Your task to perform on an android device: turn off notifications in google photos Image 0: 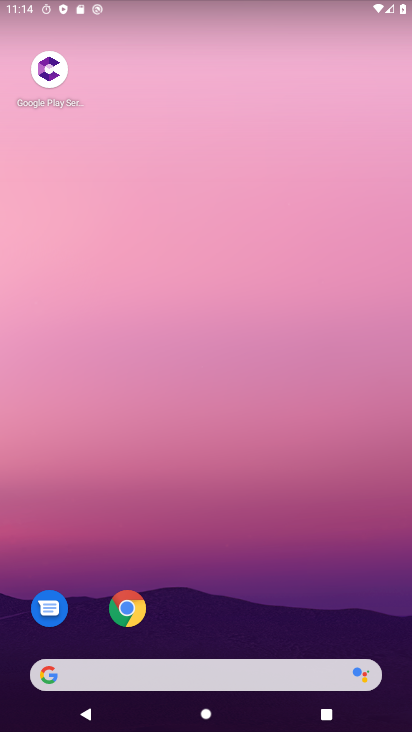
Step 0: drag from (249, 641) to (206, 43)
Your task to perform on an android device: turn off notifications in google photos Image 1: 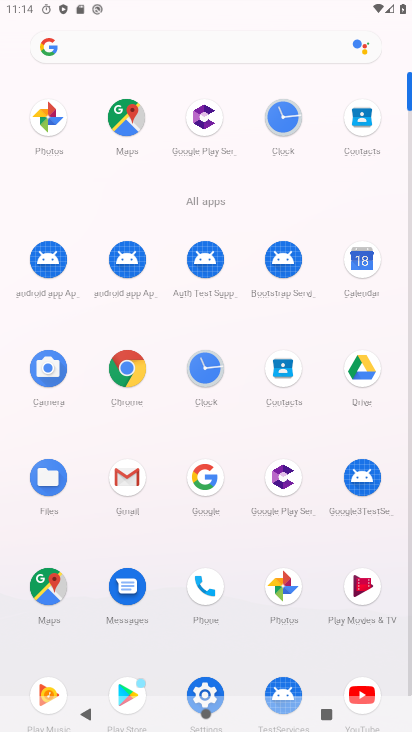
Step 1: click (290, 598)
Your task to perform on an android device: turn off notifications in google photos Image 2: 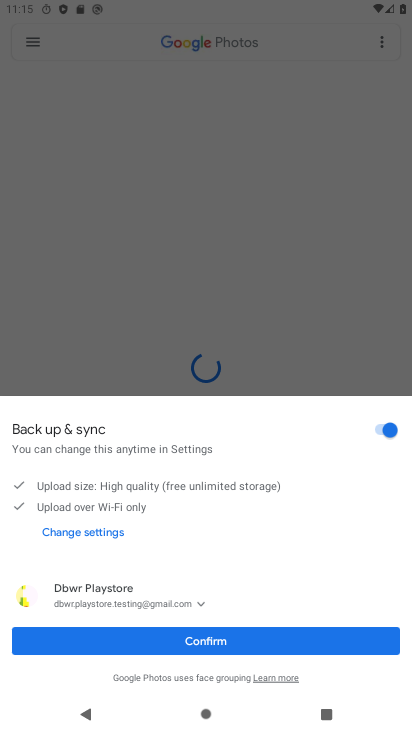
Step 2: click (240, 625)
Your task to perform on an android device: turn off notifications in google photos Image 3: 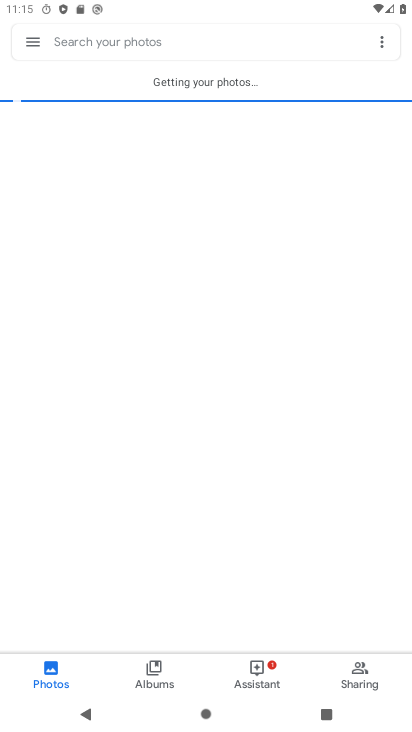
Step 3: click (34, 42)
Your task to perform on an android device: turn off notifications in google photos Image 4: 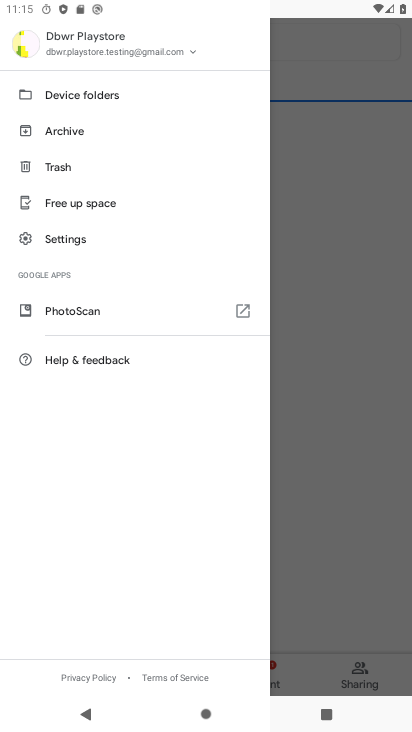
Step 4: click (137, 232)
Your task to perform on an android device: turn off notifications in google photos Image 5: 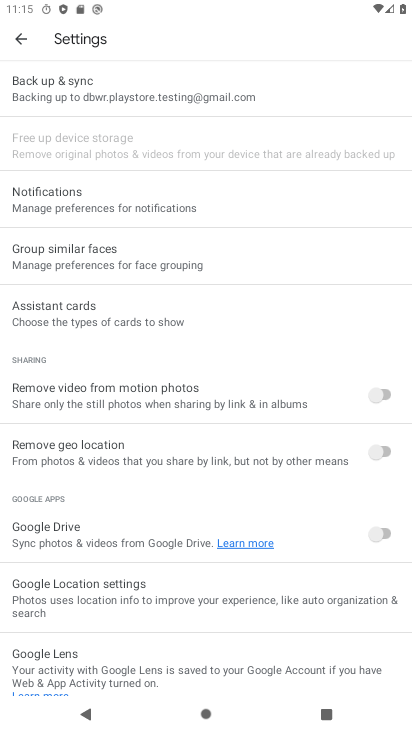
Step 5: click (186, 201)
Your task to perform on an android device: turn off notifications in google photos Image 6: 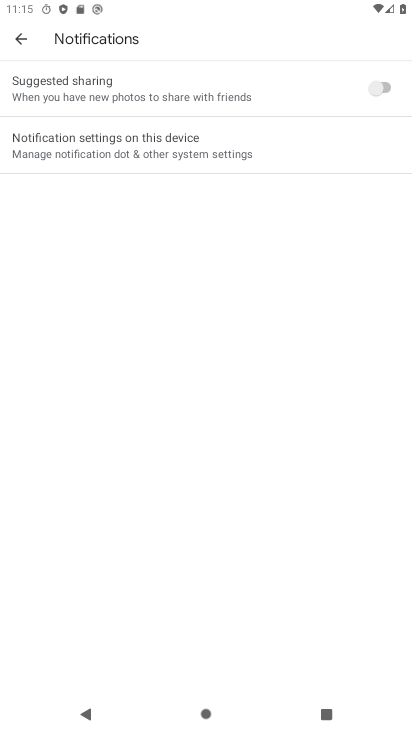
Step 6: click (213, 153)
Your task to perform on an android device: turn off notifications in google photos Image 7: 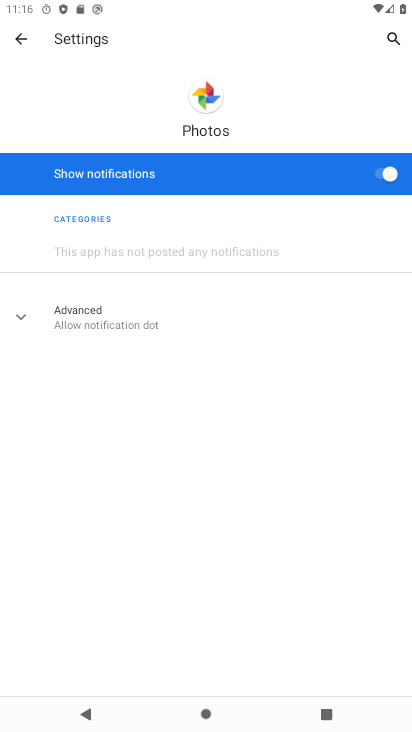
Step 7: click (383, 182)
Your task to perform on an android device: turn off notifications in google photos Image 8: 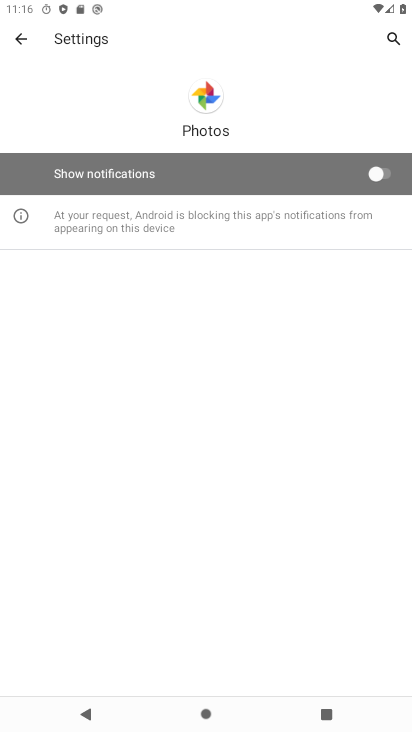
Step 8: task complete